Your task to perform on an android device: check google app version Image 0: 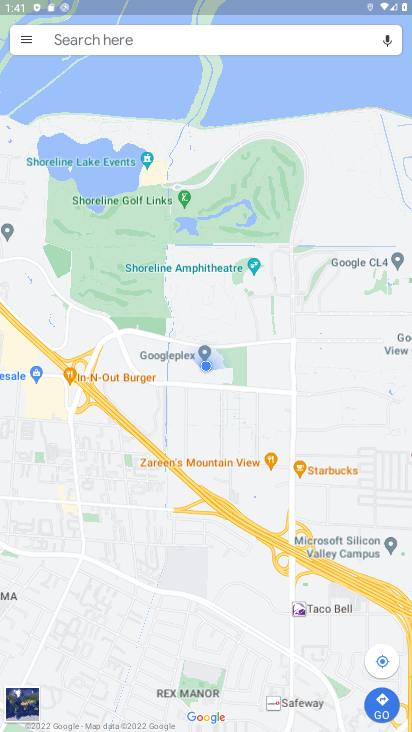
Step 0: press home button
Your task to perform on an android device: check google app version Image 1: 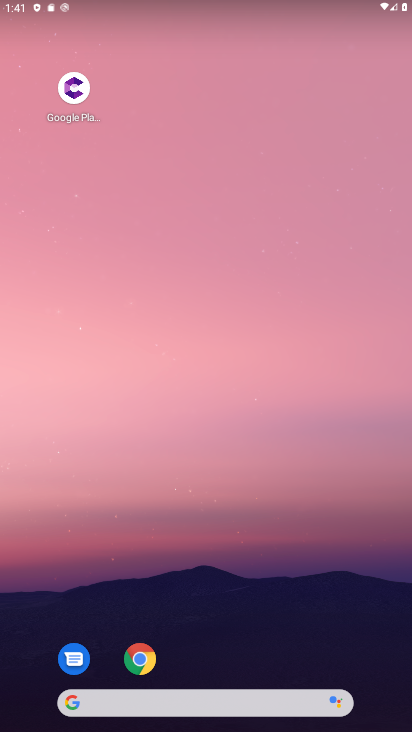
Step 1: drag from (297, 603) to (190, 158)
Your task to perform on an android device: check google app version Image 2: 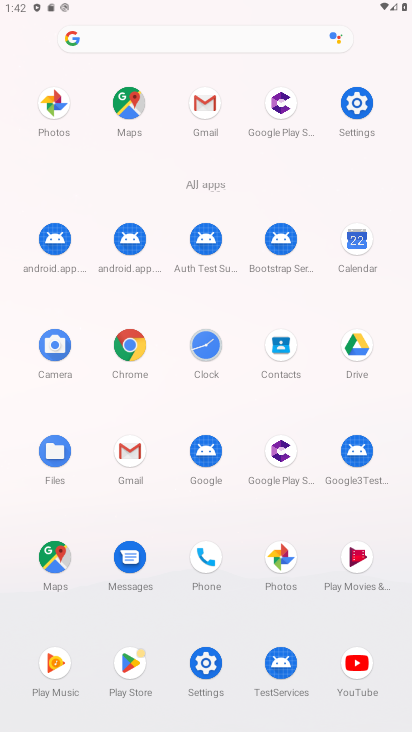
Step 2: click (211, 452)
Your task to perform on an android device: check google app version Image 3: 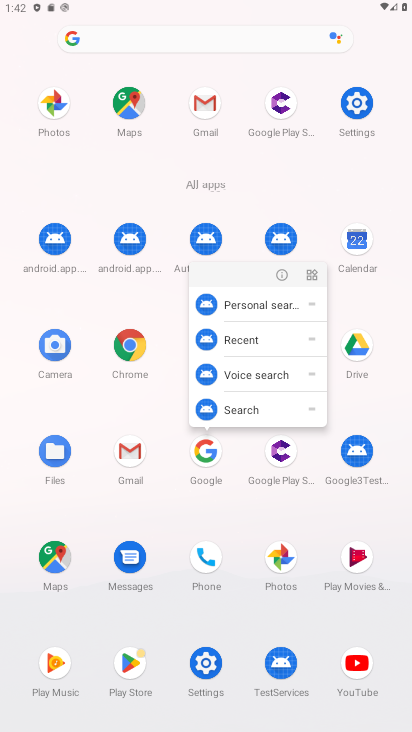
Step 3: click (285, 273)
Your task to perform on an android device: check google app version Image 4: 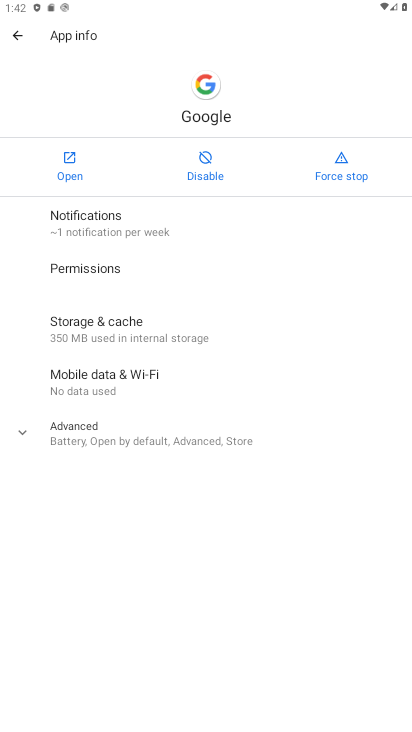
Step 4: click (279, 483)
Your task to perform on an android device: check google app version Image 5: 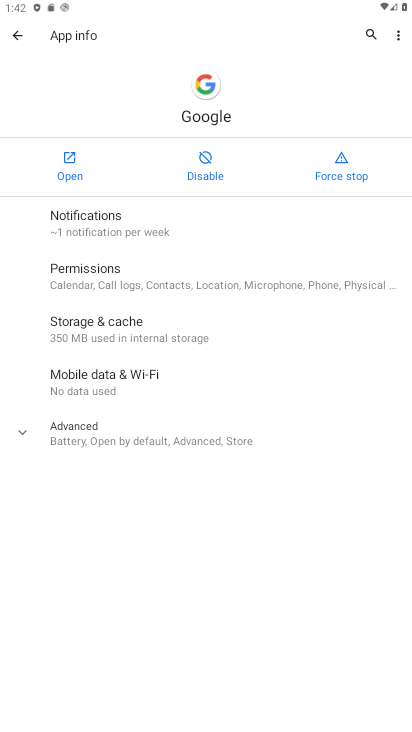
Step 5: click (230, 422)
Your task to perform on an android device: check google app version Image 6: 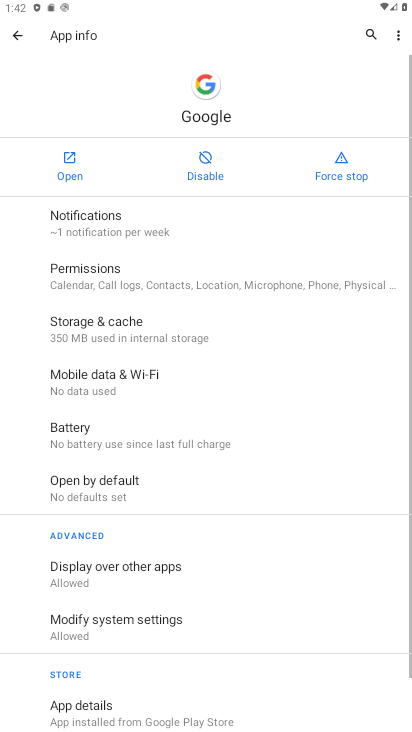
Step 6: task complete